Your task to perform on an android device: Open settings on Google Maps Image 0: 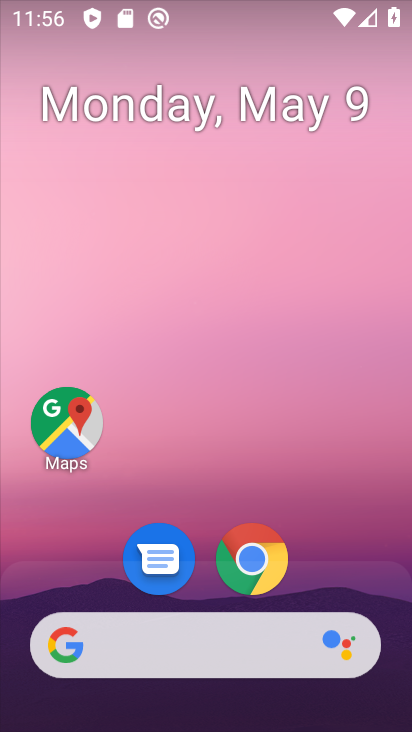
Step 0: drag from (211, 610) to (153, 78)
Your task to perform on an android device: Open settings on Google Maps Image 1: 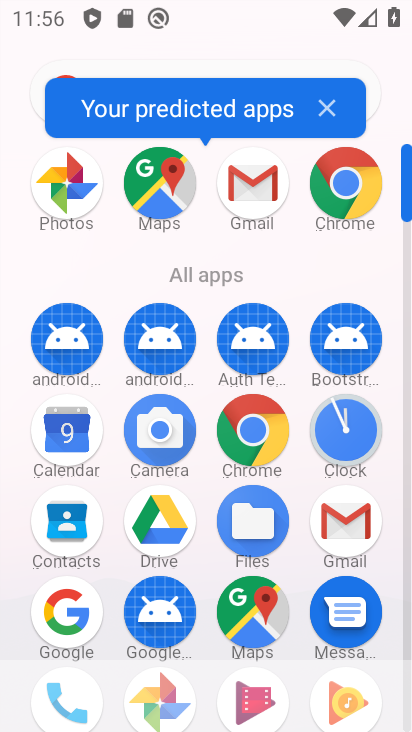
Step 1: click (247, 619)
Your task to perform on an android device: Open settings on Google Maps Image 2: 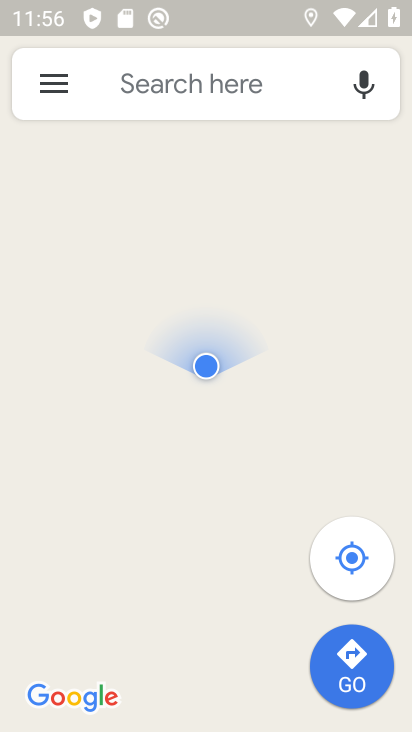
Step 2: click (51, 89)
Your task to perform on an android device: Open settings on Google Maps Image 3: 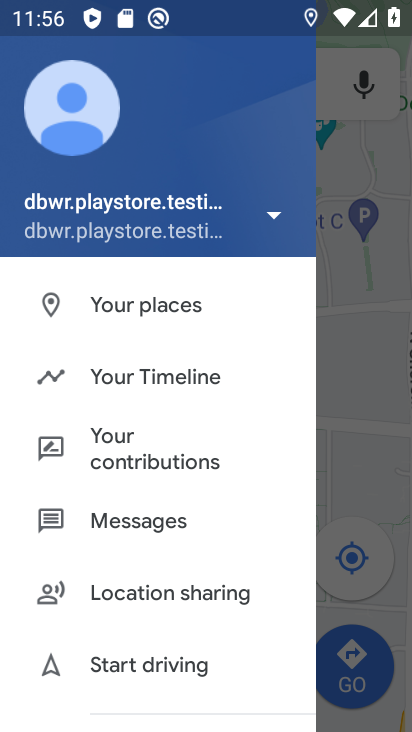
Step 3: drag from (101, 543) to (66, 134)
Your task to perform on an android device: Open settings on Google Maps Image 4: 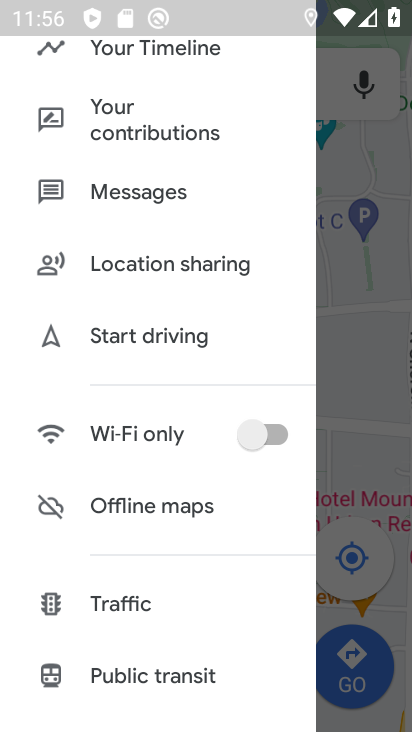
Step 4: drag from (109, 583) to (75, 129)
Your task to perform on an android device: Open settings on Google Maps Image 5: 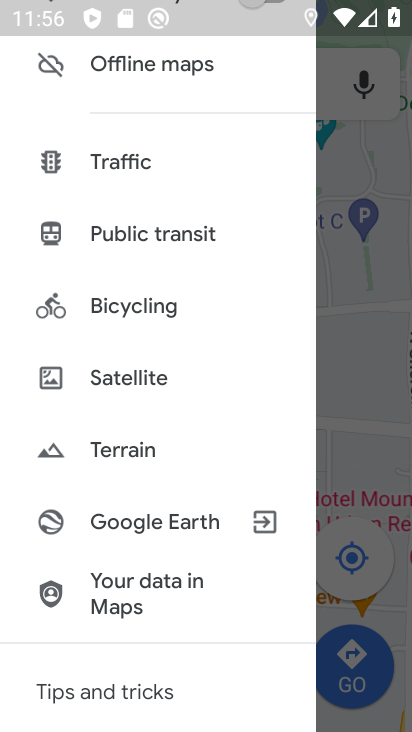
Step 5: drag from (145, 554) to (108, 138)
Your task to perform on an android device: Open settings on Google Maps Image 6: 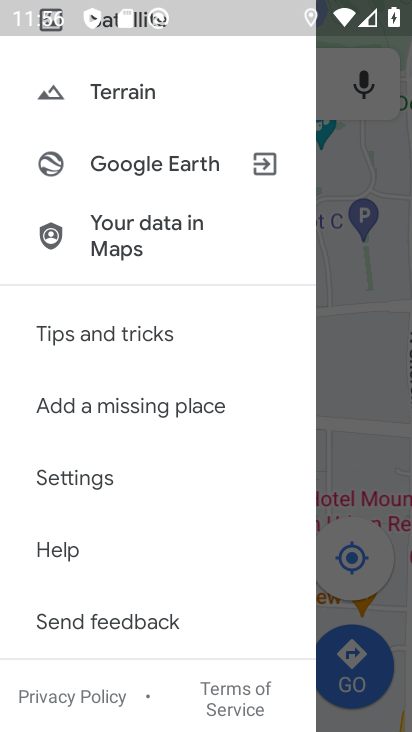
Step 6: click (80, 476)
Your task to perform on an android device: Open settings on Google Maps Image 7: 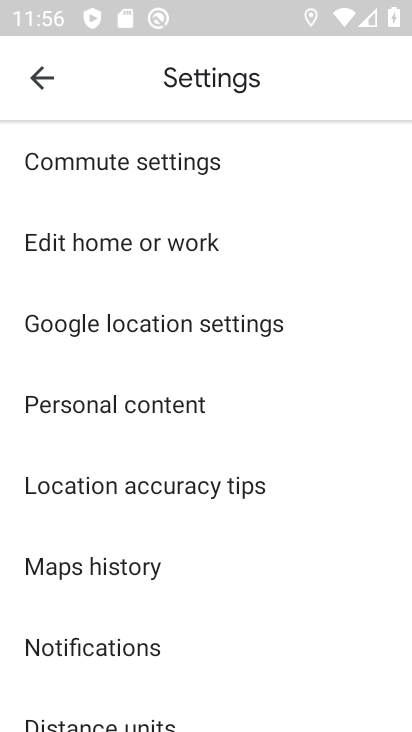
Step 7: task complete